Your task to perform on an android device: see tabs open on other devices in the chrome app Image 0: 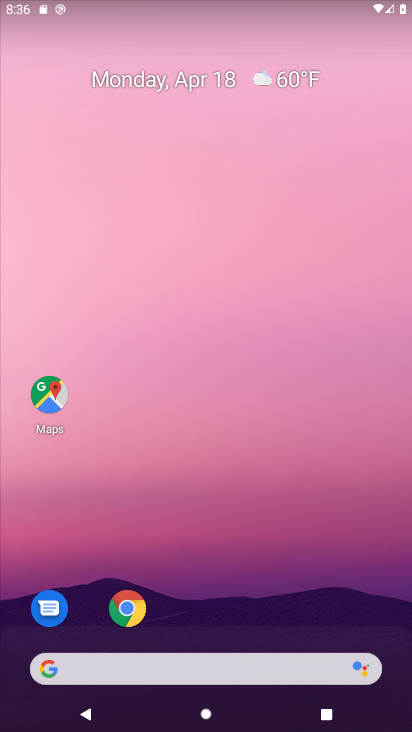
Step 0: click (303, 403)
Your task to perform on an android device: see tabs open on other devices in the chrome app Image 1: 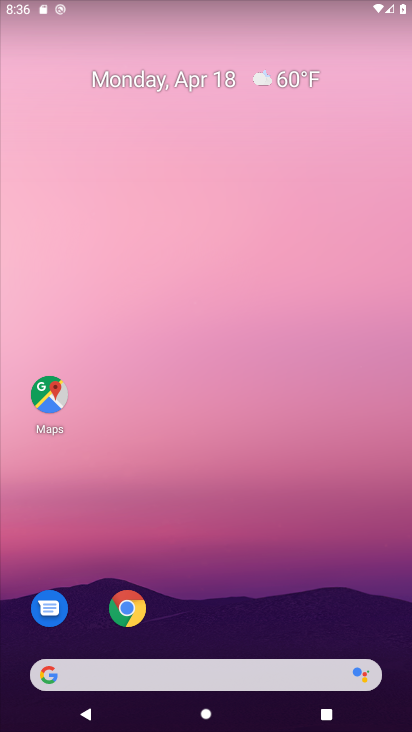
Step 1: drag from (197, 519) to (302, 52)
Your task to perform on an android device: see tabs open on other devices in the chrome app Image 2: 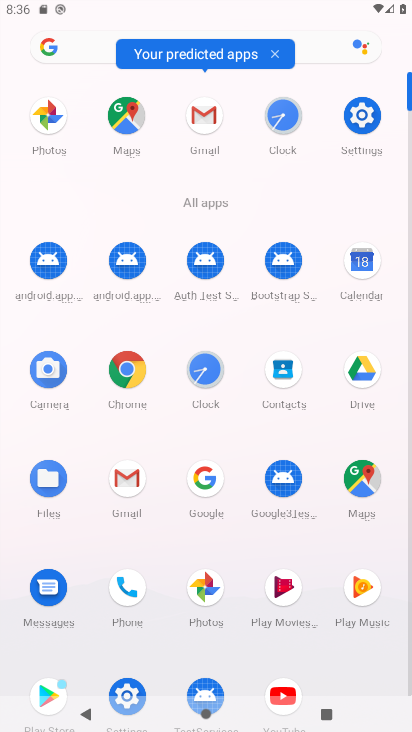
Step 2: drag from (172, 625) to (210, 110)
Your task to perform on an android device: see tabs open on other devices in the chrome app Image 3: 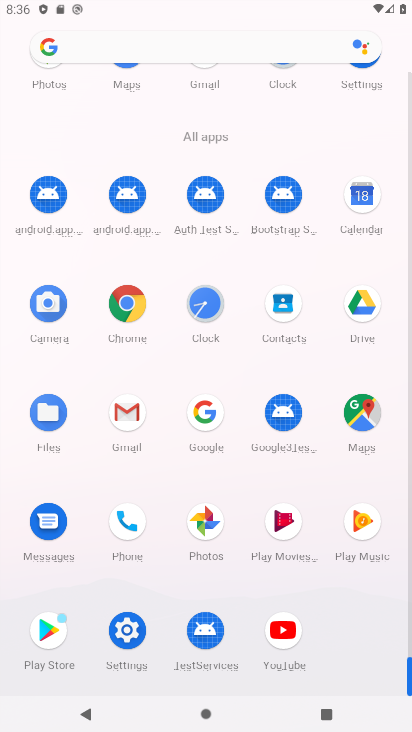
Step 3: click (121, 302)
Your task to perform on an android device: see tabs open on other devices in the chrome app Image 4: 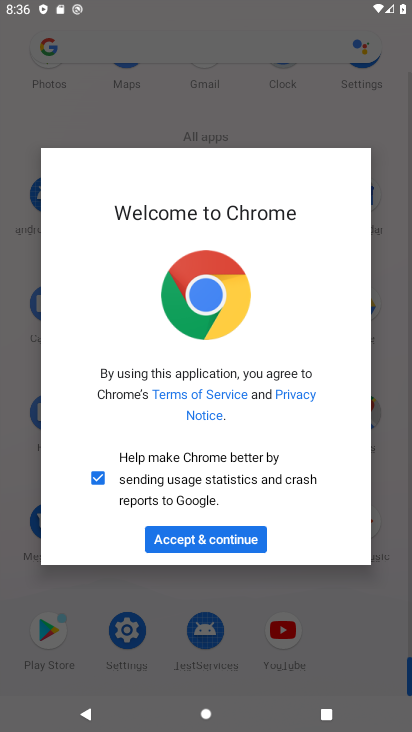
Step 4: click (177, 543)
Your task to perform on an android device: see tabs open on other devices in the chrome app Image 5: 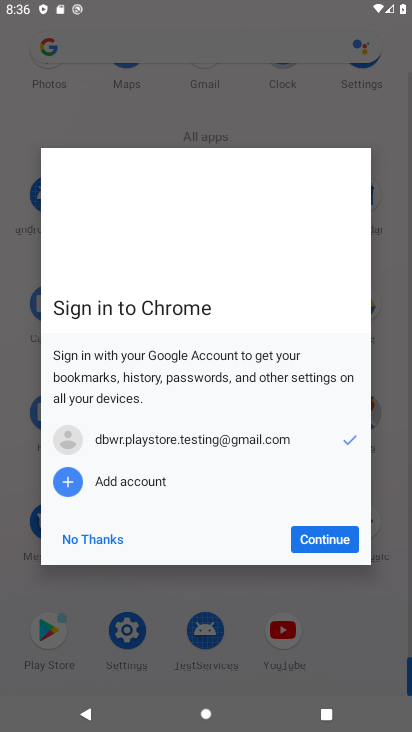
Step 5: click (320, 537)
Your task to perform on an android device: see tabs open on other devices in the chrome app Image 6: 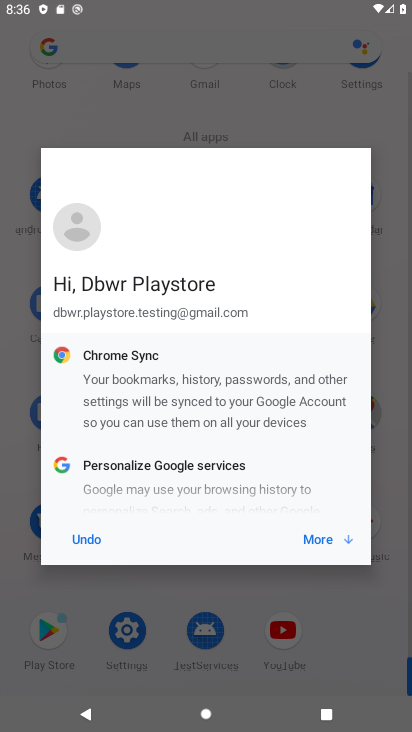
Step 6: click (319, 538)
Your task to perform on an android device: see tabs open on other devices in the chrome app Image 7: 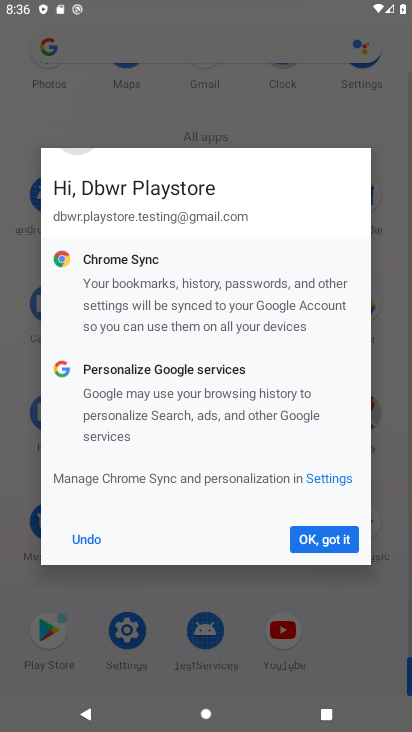
Step 7: click (310, 540)
Your task to perform on an android device: see tabs open on other devices in the chrome app Image 8: 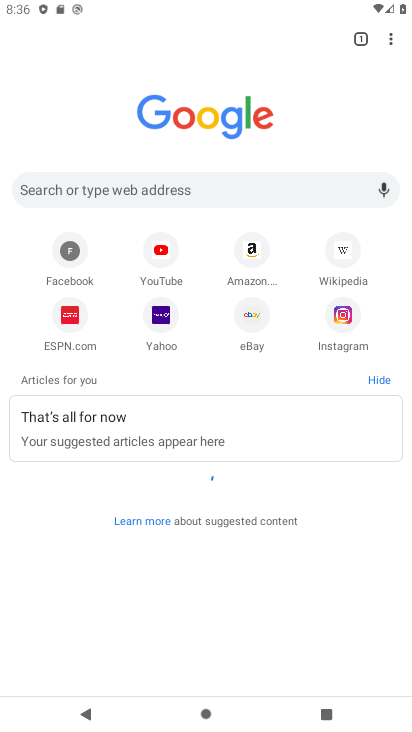
Step 8: click (389, 45)
Your task to perform on an android device: see tabs open on other devices in the chrome app Image 9: 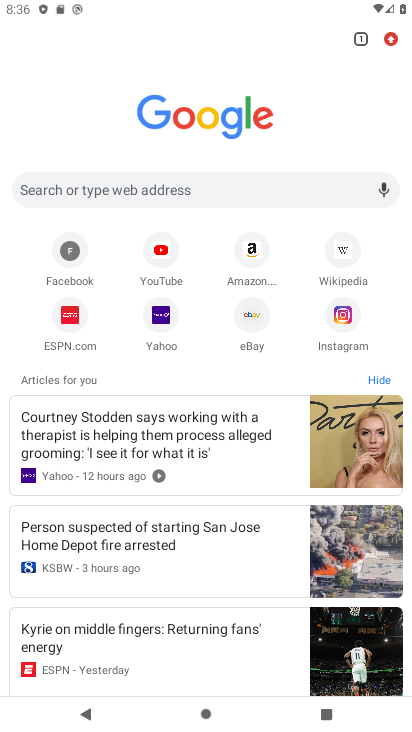
Step 9: drag from (389, 45) to (266, 235)
Your task to perform on an android device: see tabs open on other devices in the chrome app Image 10: 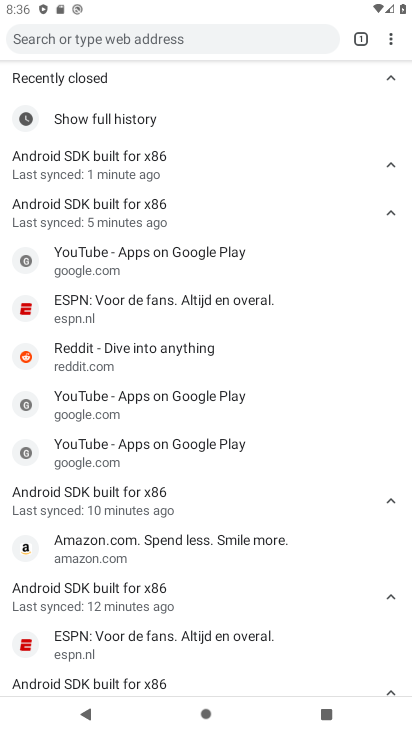
Step 10: click (114, 303)
Your task to perform on an android device: see tabs open on other devices in the chrome app Image 11: 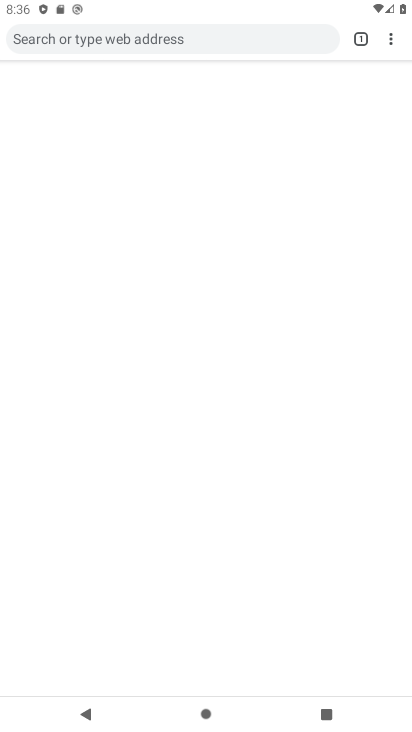
Step 11: task complete